Your task to perform on an android device: Add "asus rog" to the cart on bestbuy.com, then select checkout. Image 0: 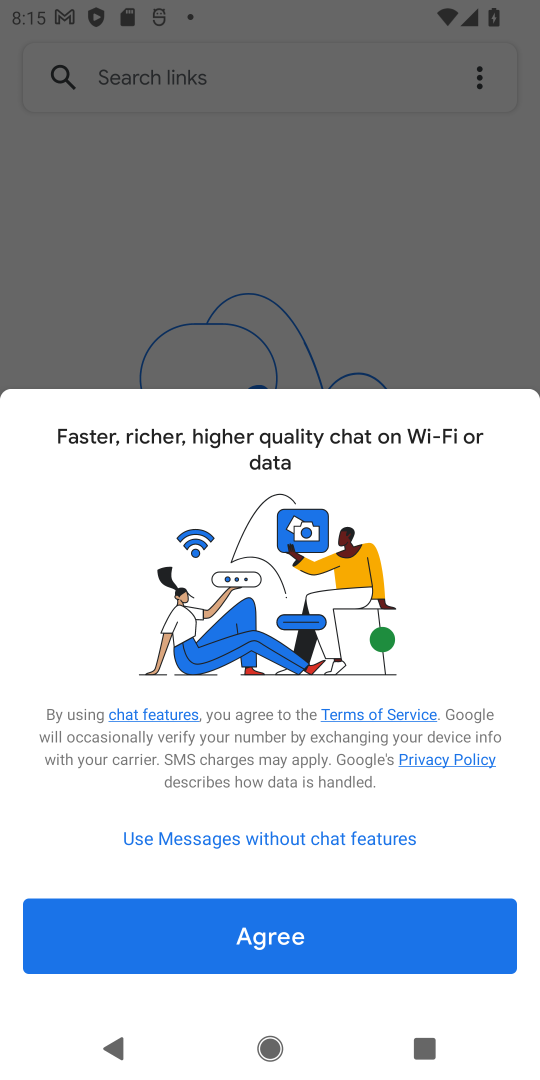
Step 0: press home button
Your task to perform on an android device: Add "asus rog" to the cart on bestbuy.com, then select checkout. Image 1: 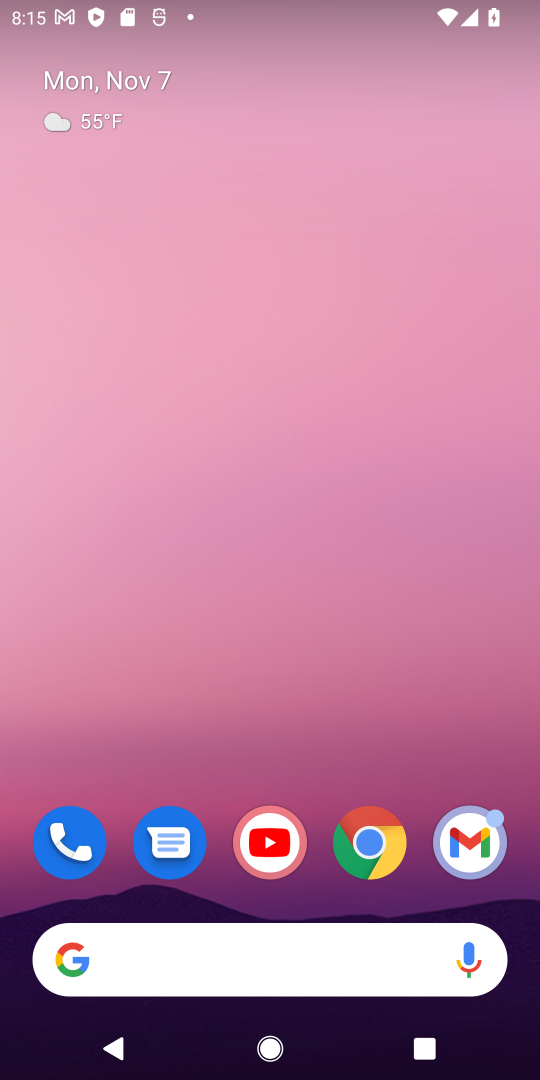
Step 1: click (367, 845)
Your task to perform on an android device: Add "asus rog" to the cart on bestbuy.com, then select checkout. Image 2: 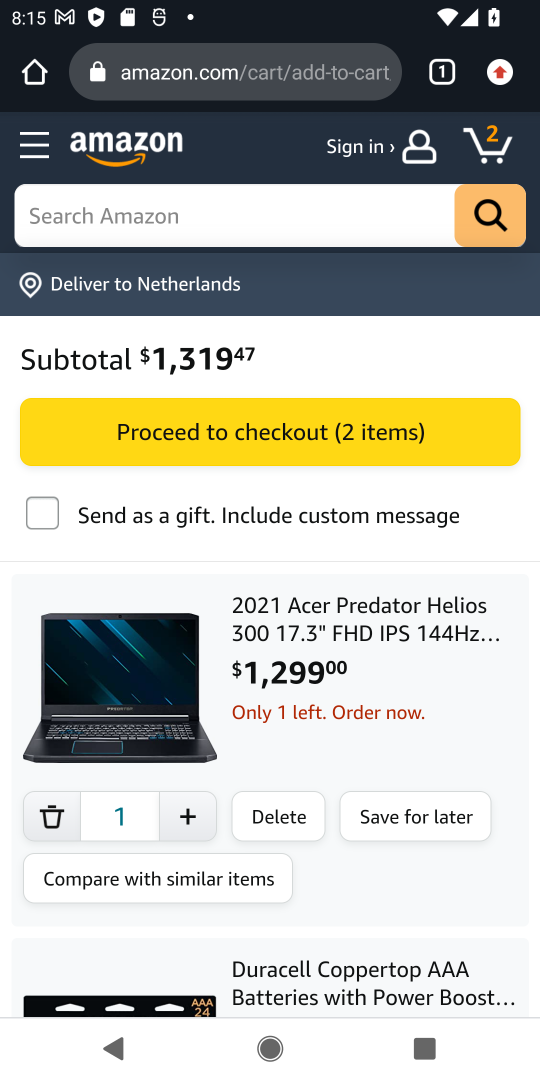
Step 2: click (311, 67)
Your task to perform on an android device: Add "asus rog" to the cart on bestbuy.com, then select checkout. Image 3: 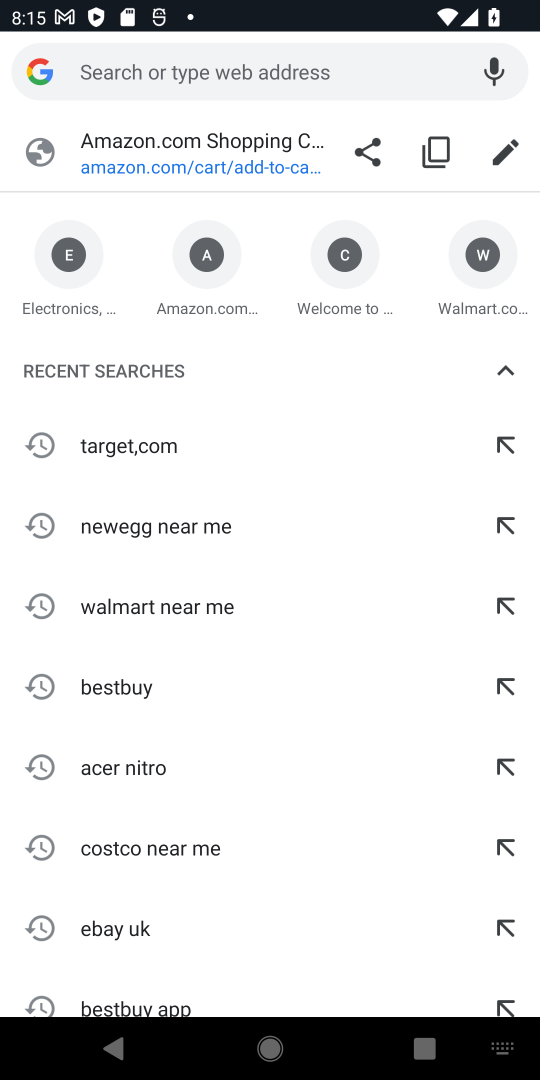
Step 3: click (129, 687)
Your task to perform on an android device: Add "asus rog" to the cart on bestbuy.com, then select checkout. Image 4: 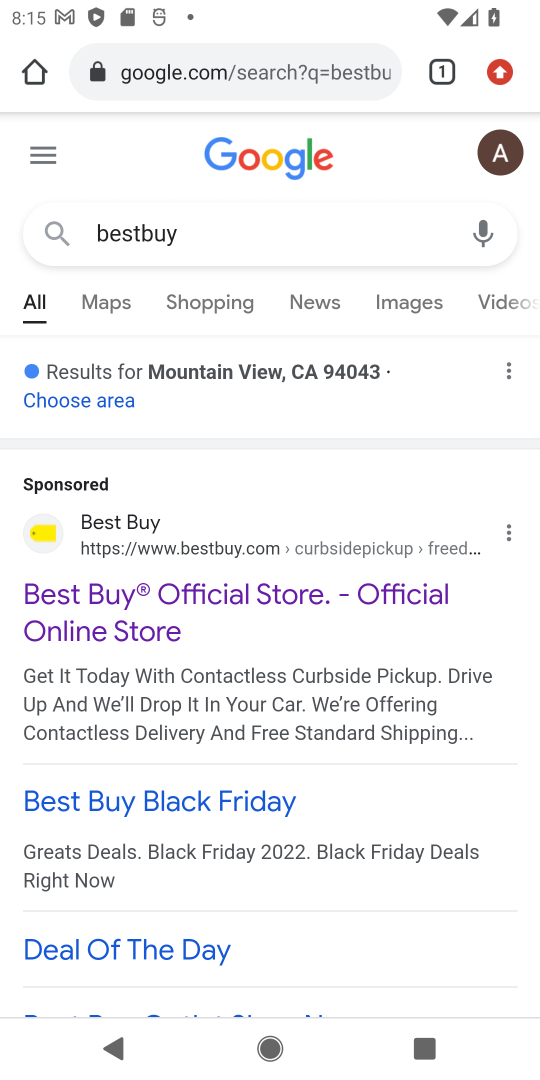
Step 4: click (189, 599)
Your task to perform on an android device: Add "asus rog" to the cart on bestbuy.com, then select checkout. Image 5: 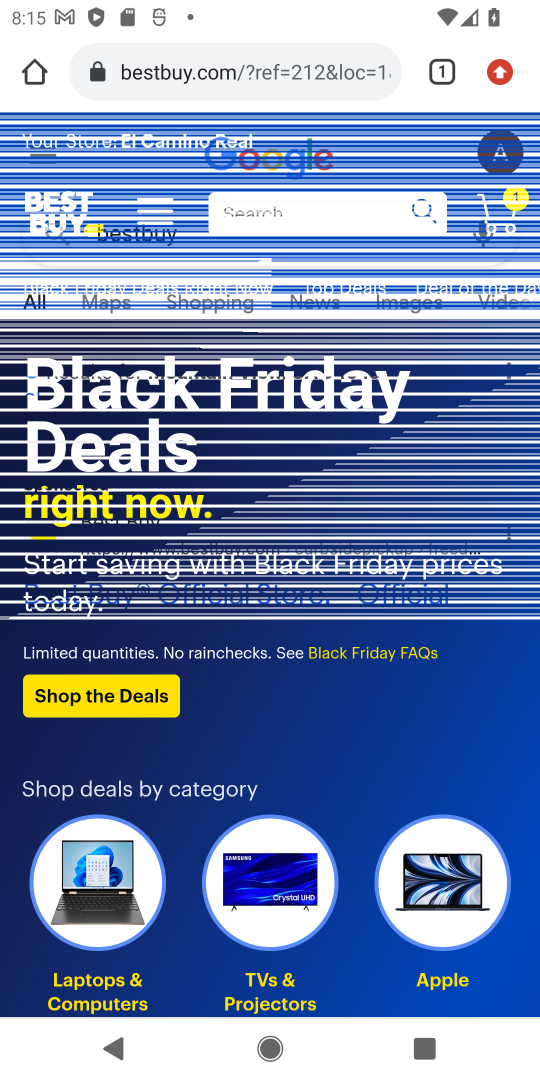
Step 5: click (192, 589)
Your task to perform on an android device: Add "asus rog" to the cart on bestbuy.com, then select checkout. Image 6: 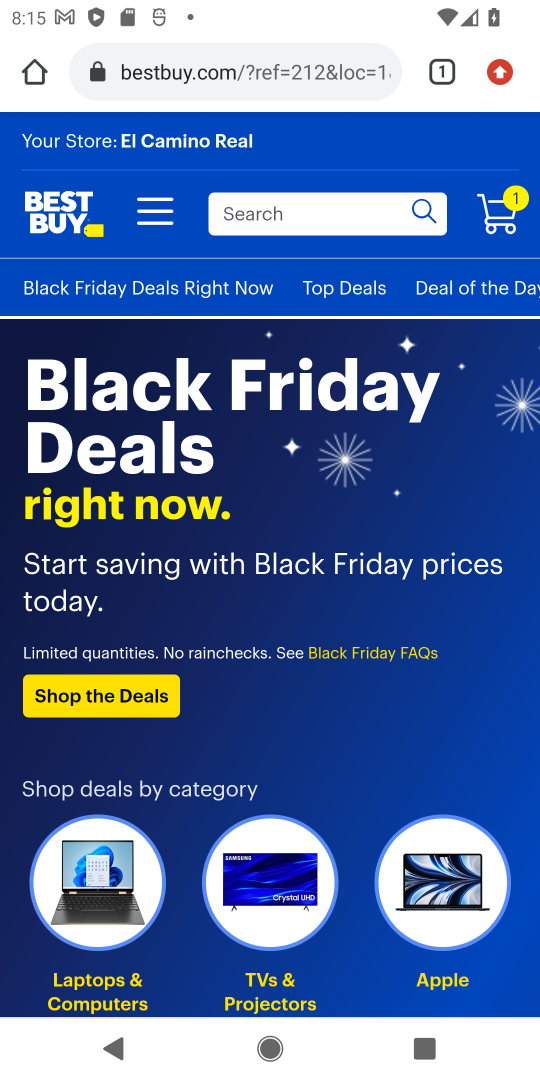
Step 6: click (319, 217)
Your task to perform on an android device: Add "asus rog" to the cart on bestbuy.com, then select checkout. Image 7: 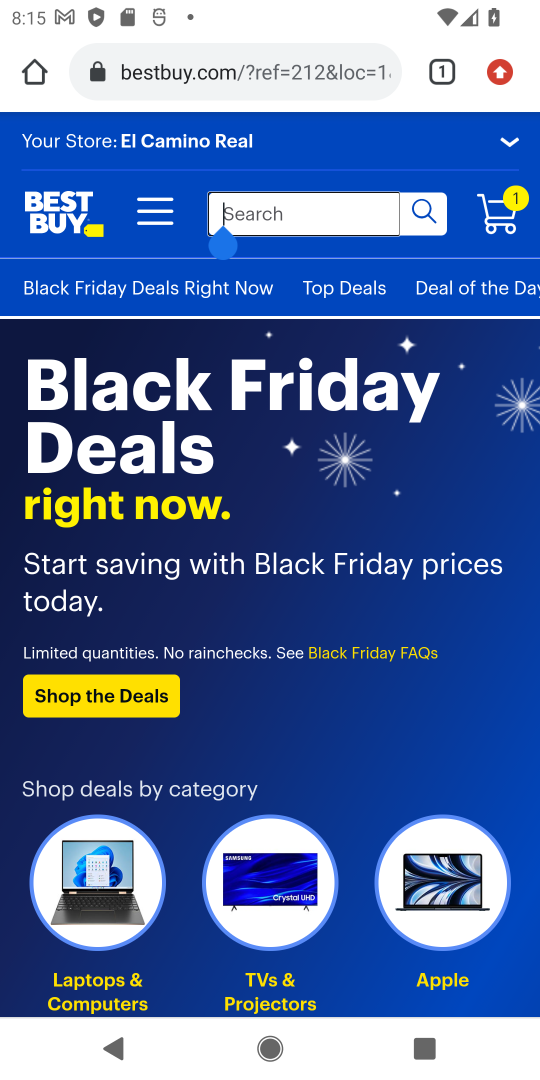
Step 7: click (321, 208)
Your task to perform on an android device: Add "asus rog" to the cart on bestbuy.com, then select checkout. Image 8: 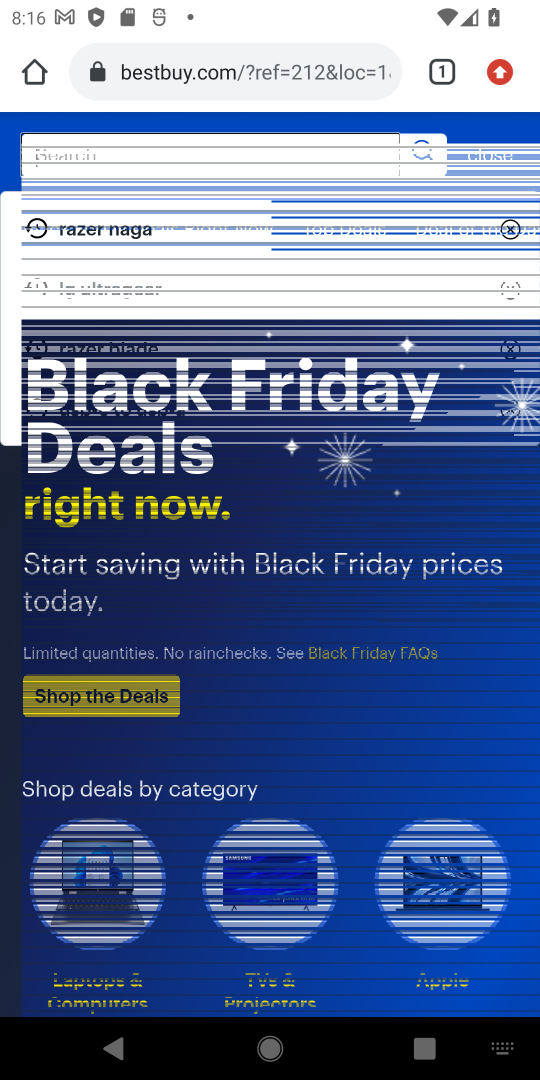
Step 8: type "asus rog"
Your task to perform on an android device: Add "asus rog" to the cart on bestbuy.com, then select checkout. Image 9: 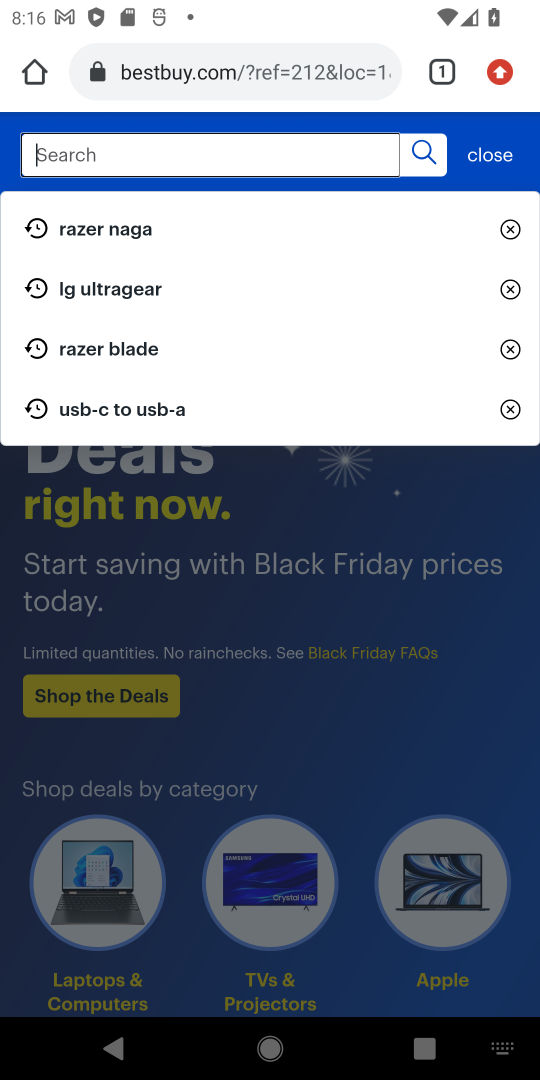
Step 9: press enter
Your task to perform on an android device: Add "asus rog" to the cart on bestbuy.com, then select checkout. Image 10: 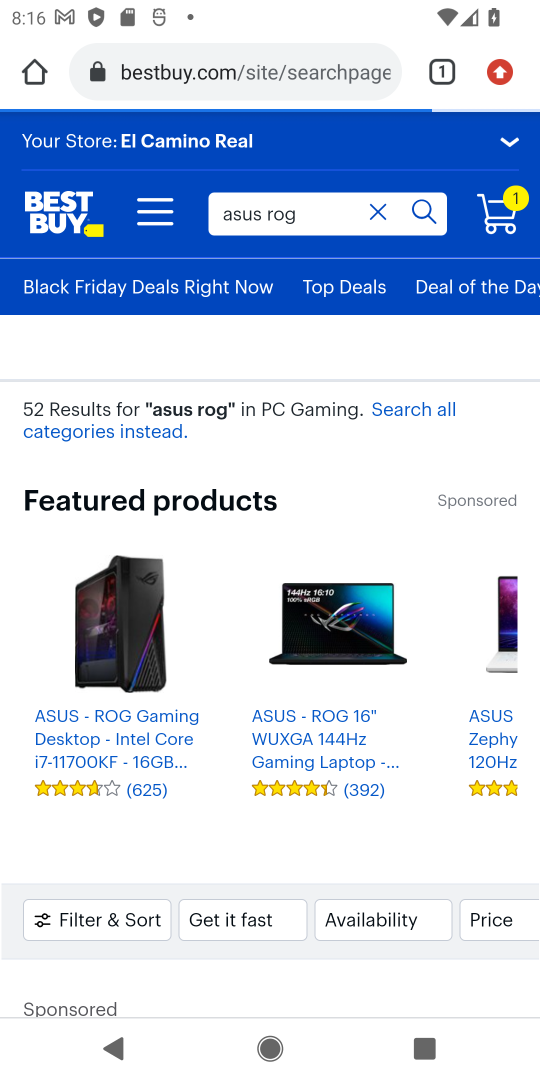
Step 10: drag from (289, 870) to (447, 82)
Your task to perform on an android device: Add "asus rog" to the cart on bestbuy.com, then select checkout. Image 11: 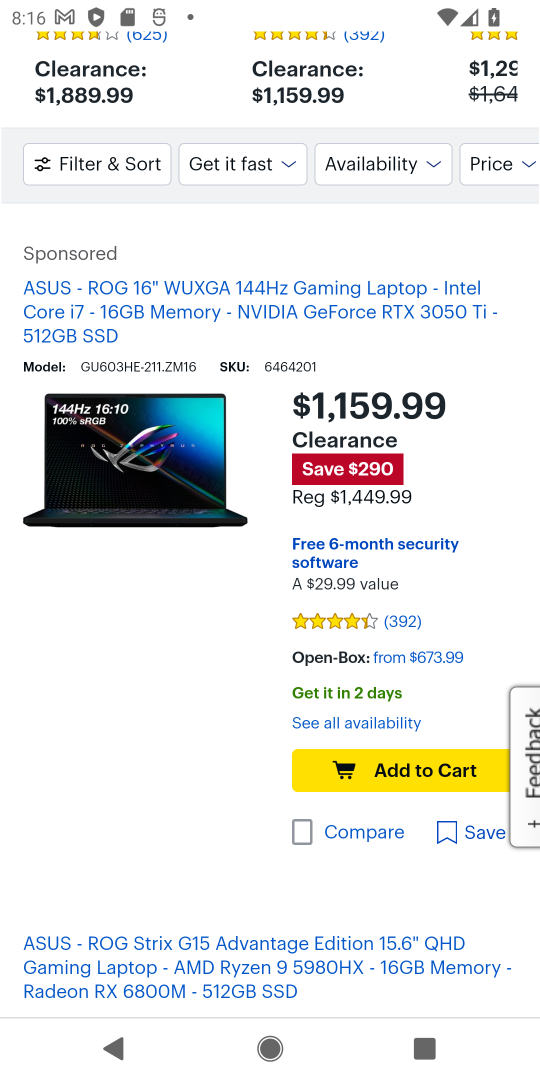
Step 11: click (421, 769)
Your task to perform on an android device: Add "asus rog" to the cart on bestbuy.com, then select checkout. Image 12: 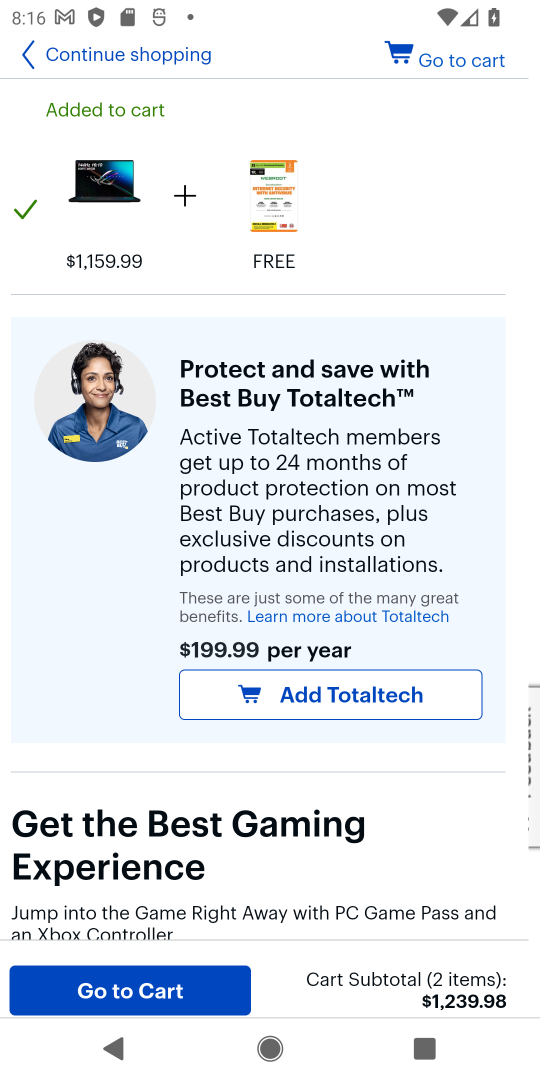
Step 12: click (459, 54)
Your task to perform on an android device: Add "asus rog" to the cart on bestbuy.com, then select checkout. Image 13: 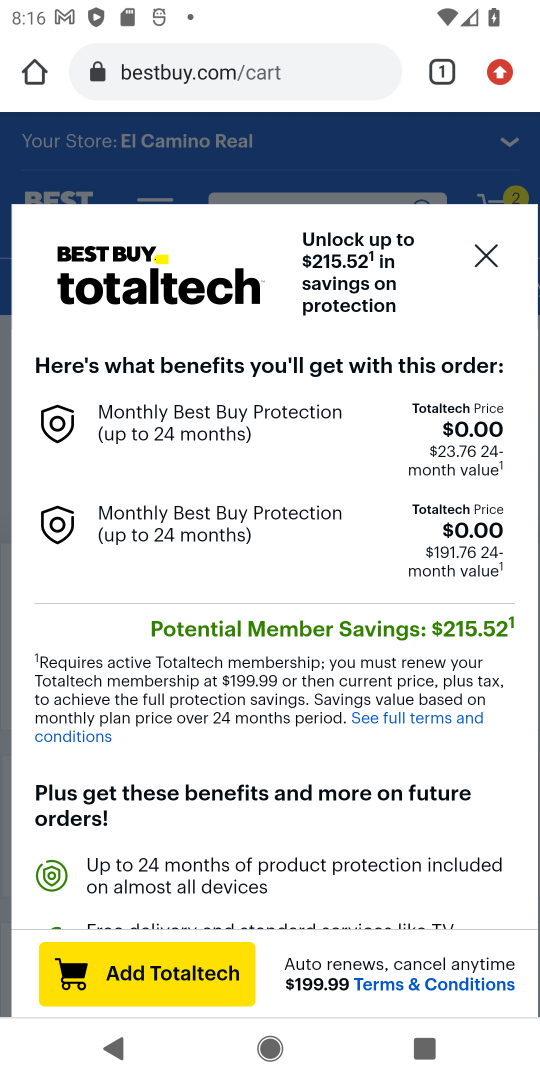
Step 13: drag from (188, 907) to (317, 898)
Your task to perform on an android device: Add "asus rog" to the cart on bestbuy.com, then select checkout. Image 14: 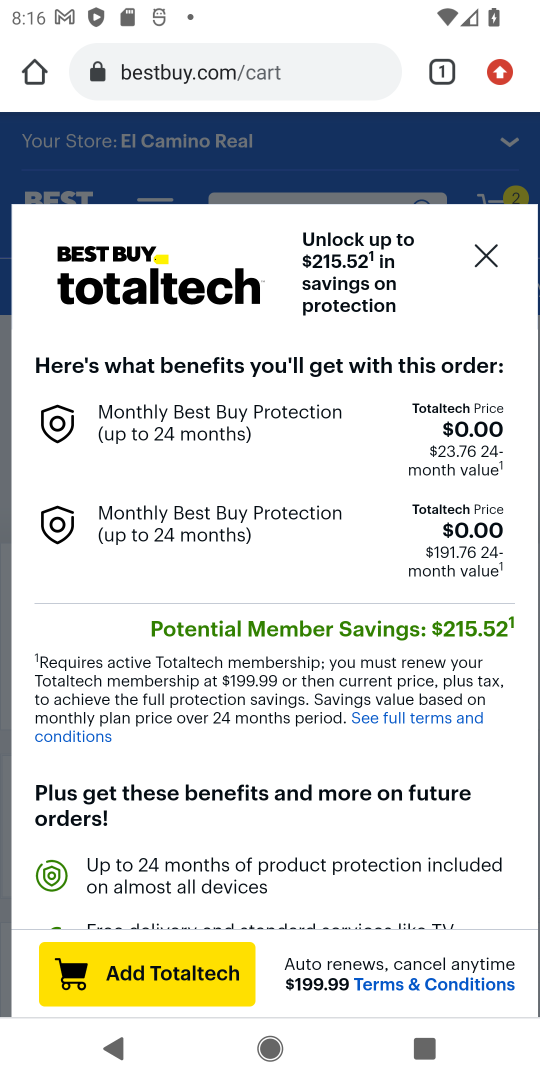
Step 14: click (481, 244)
Your task to perform on an android device: Add "asus rog" to the cart on bestbuy.com, then select checkout. Image 15: 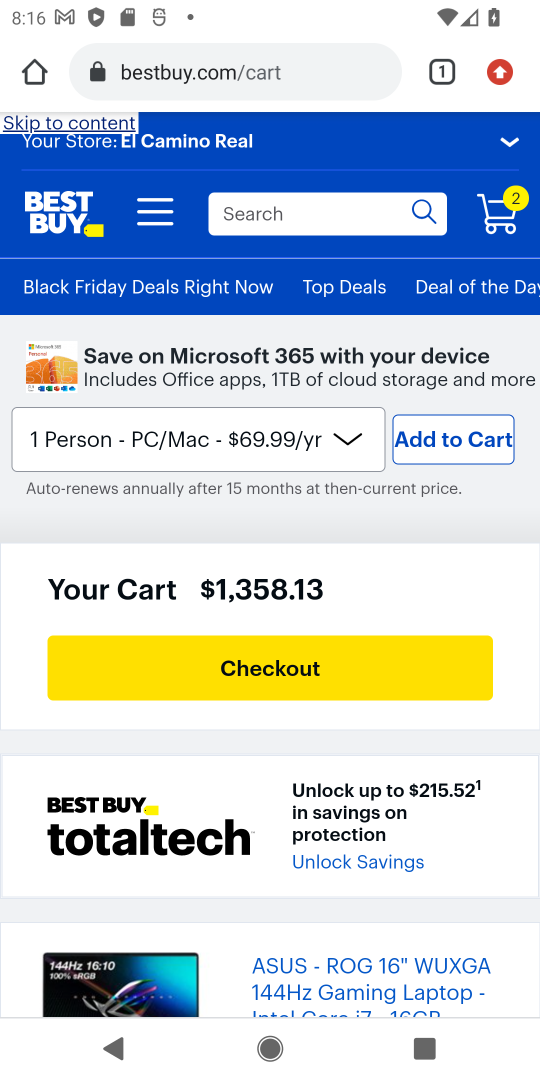
Step 15: drag from (284, 929) to (386, 396)
Your task to perform on an android device: Add "asus rog" to the cart on bestbuy.com, then select checkout. Image 16: 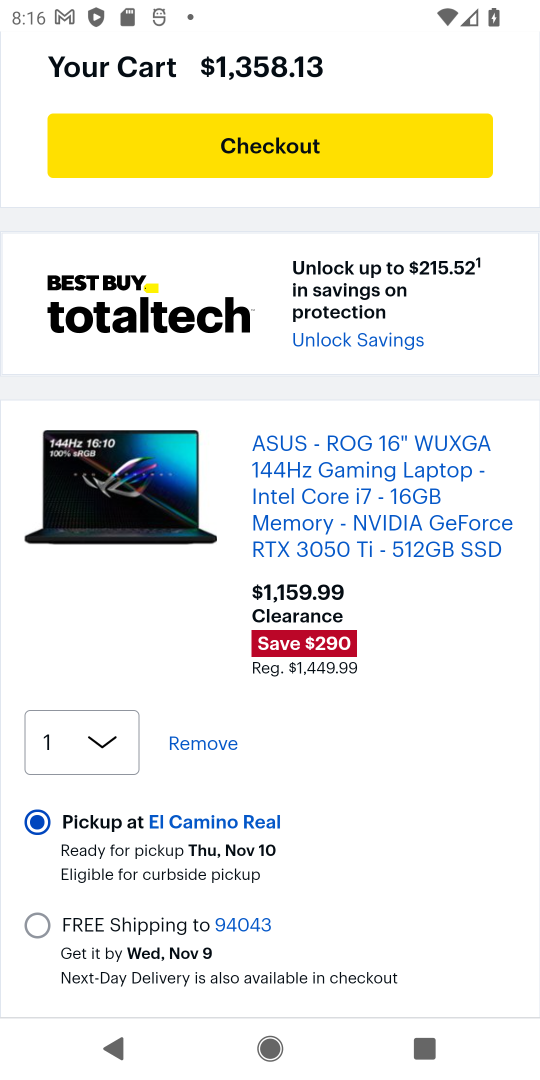
Step 16: drag from (355, 865) to (472, 44)
Your task to perform on an android device: Add "asus rog" to the cart on bestbuy.com, then select checkout. Image 17: 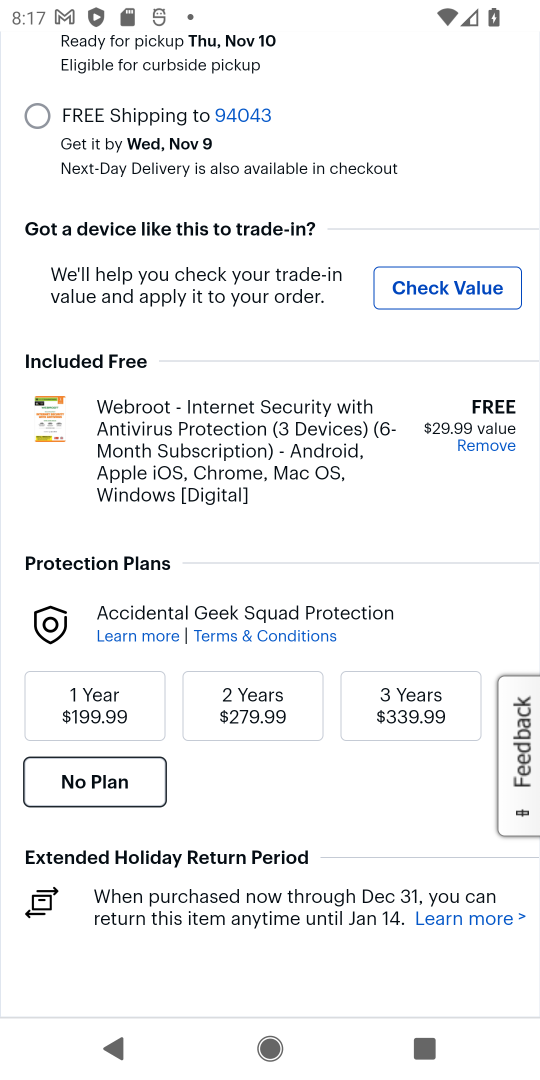
Step 17: drag from (278, 895) to (371, 215)
Your task to perform on an android device: Add "asus rog" to the cart on bestbuy.com, then select checkout. Image 18: 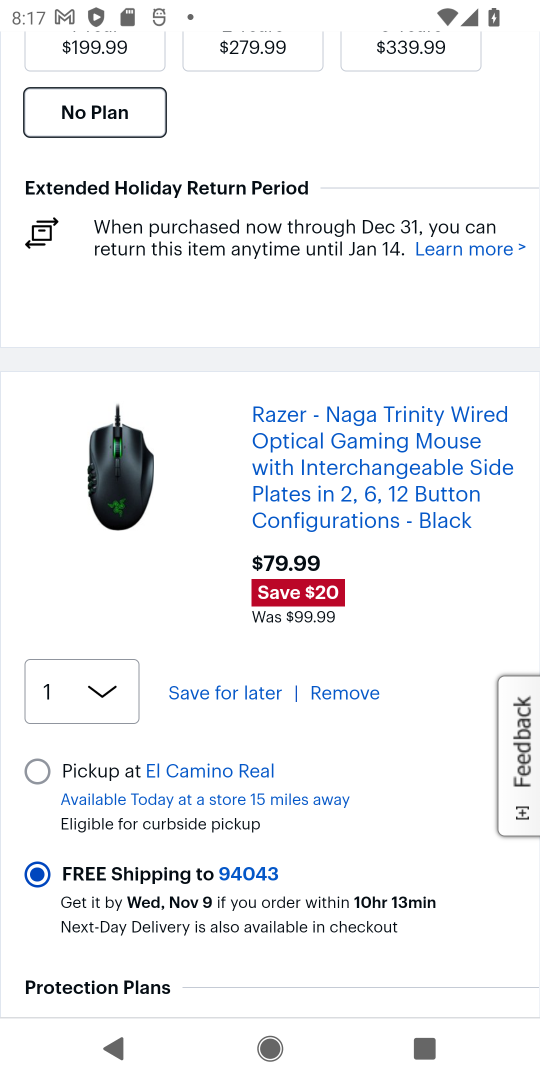
Step 18: click (333, 686)
Your task to perform on an android device: Add "asus rog" to the cart on bestbuy.com, then select checkout. Image 19: 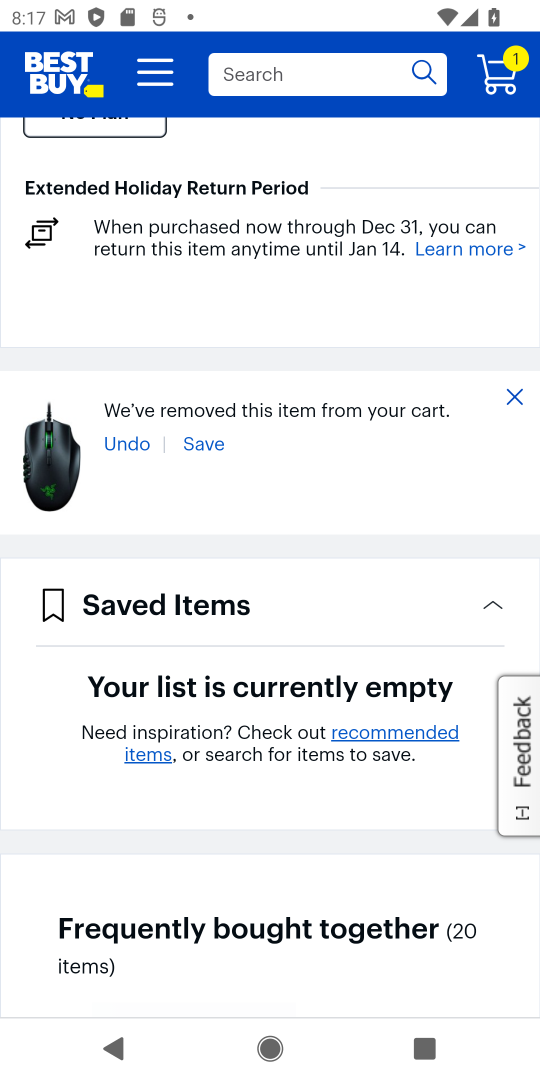
Step 19: task complete